Your task to perform on an android device: Go to wifi settings Image 0: 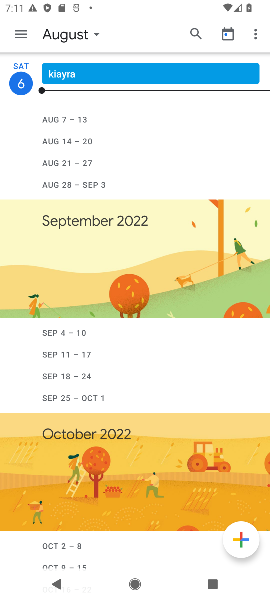
Step 0: press home button
Your task to perform on an android device: Go to wifi settings Image 1: 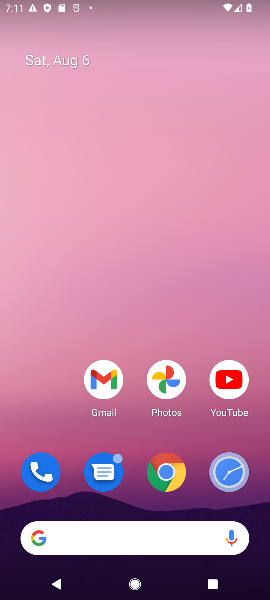
Step 1: drag from (197, 494) to (177, 123)
Your task to perform on an android device: Go to wifi settings Image 2: 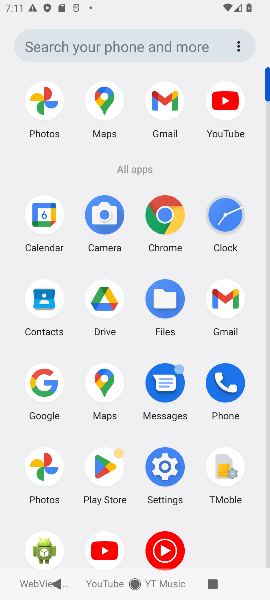
Step 2: click (165, 466)
Your task to perform on an android device: Go to wifi settings Image 3: 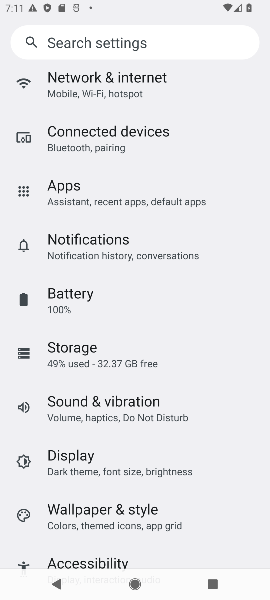
Step 3: click (95, 82)
Your task to perform on an android device: Go to wifi settings Image 4: 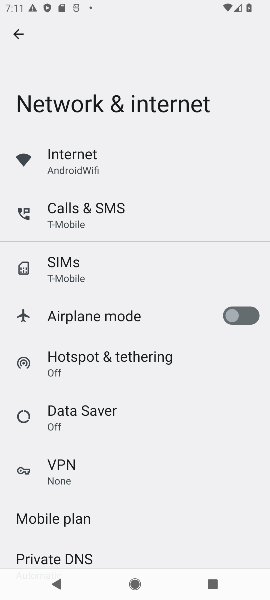
Step 4: click (70, 155)
Your task to perform on an android device: Go to wifi settings Image 5: 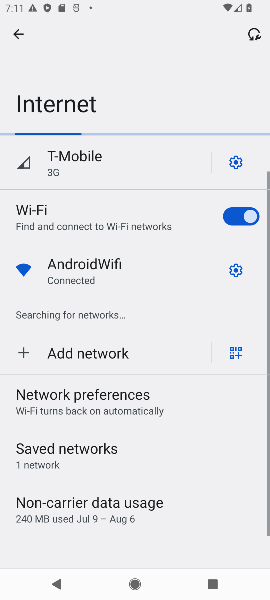
Step 5: click (234, 268)
Your task to perform on an android device: Go to wifi settings Image 6: 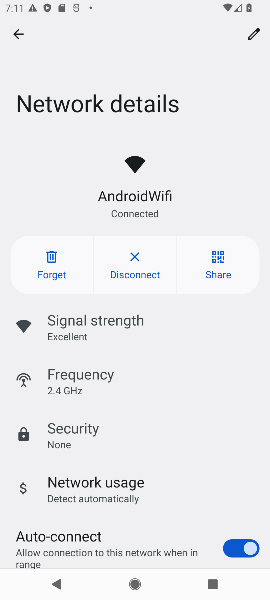
Step 6: task complete